Your task to perform on an android device: turn off location Image 0: 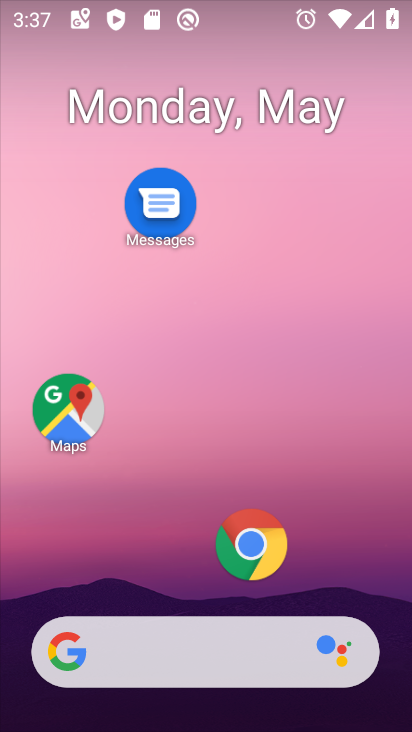
Step 0: drag from (186, 589) to (148, 191)
Your task to perform on an android device: turn off location Image 1: 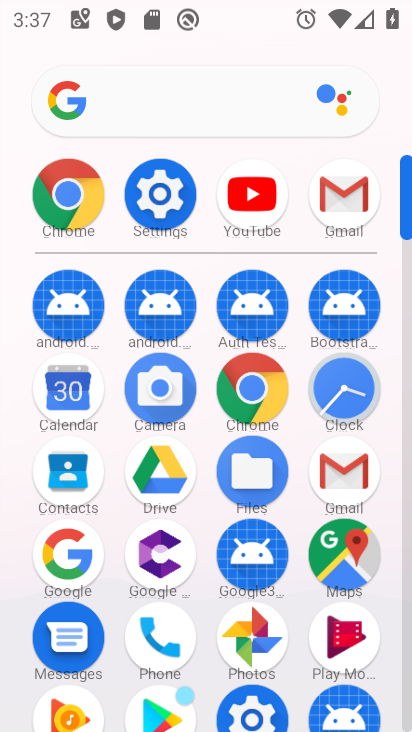
Step 1: click (158, 206)
Your task to perform on an android device: turn off location Image 2: 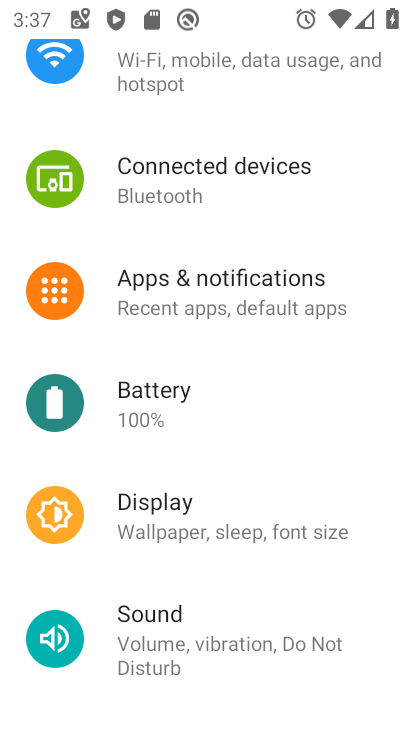
Step 2: drag from (205, 622) to (240, 329)
Your task to perform on an android device: turn off location Image 3: 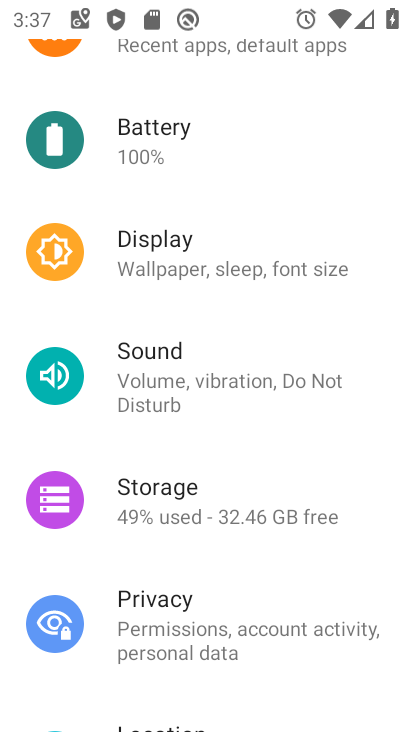
Step 3: drag from (240, 590) to (230, 278)
Your task to perform on an android device: turn off location Image 4: 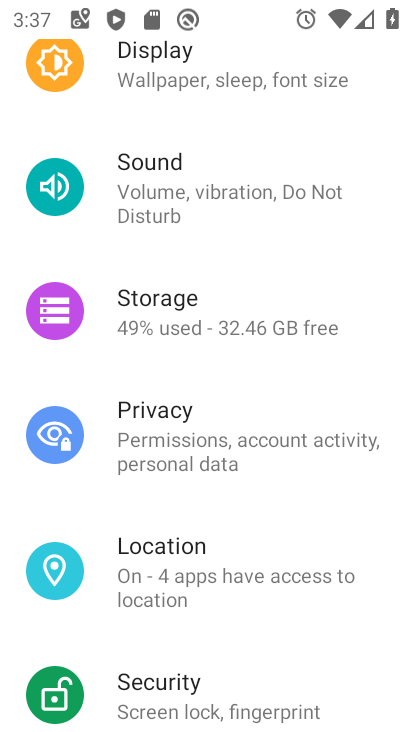
Step 4: click (224, 550)
Your task to perform on an android device: turn off location Image 5: 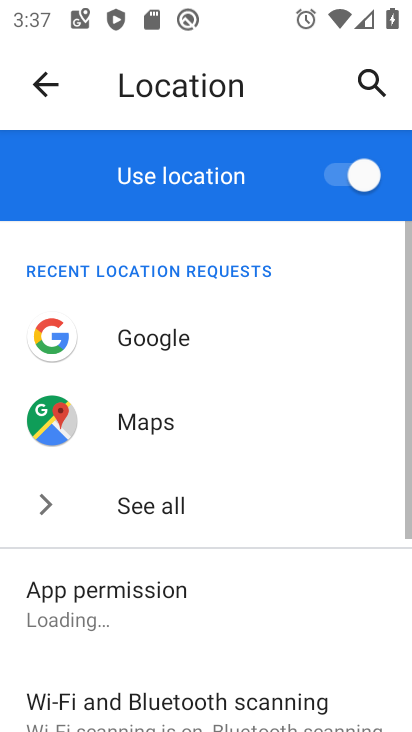
Step 5: click (330, 178)
Your task to perform on an android device: turn off location Image 6: 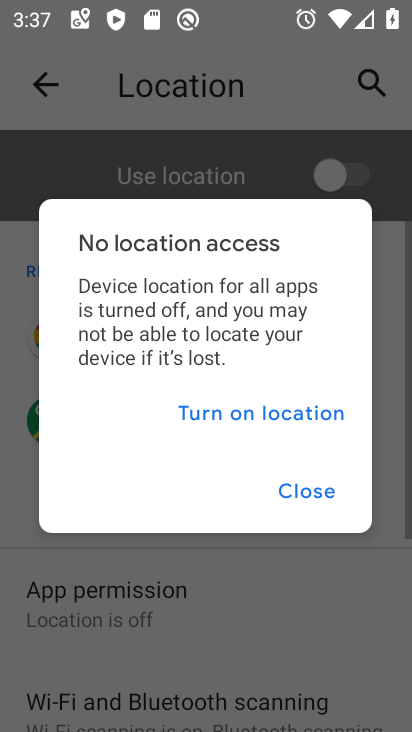
Step 6: task complete